Your task to perform on an android device: delete a single message in the gmail app Image 0: 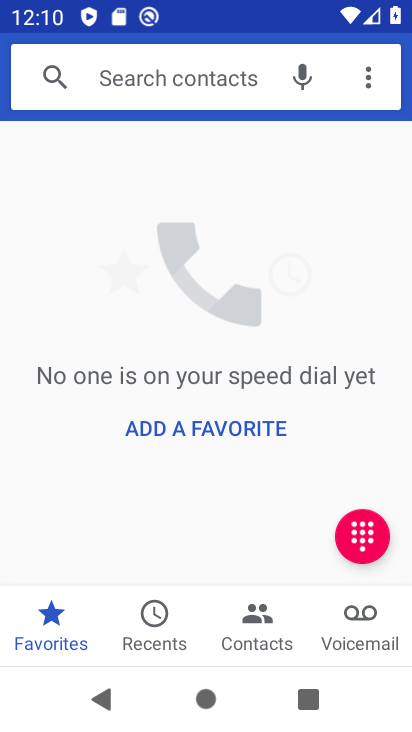
Step 0: press home button
Your task to perform on an android device: delete a single message in the gmail app Image 1: 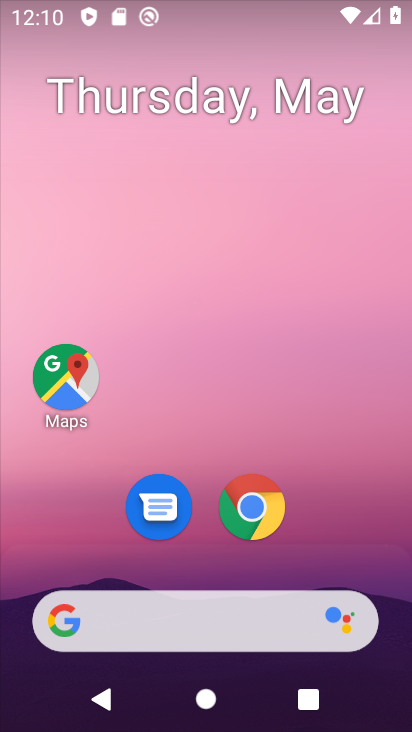
Step 1: drag from (291, 563) to (250, 9)
Your task to perform on an android device: delete a single message in the gmail app Image 2: 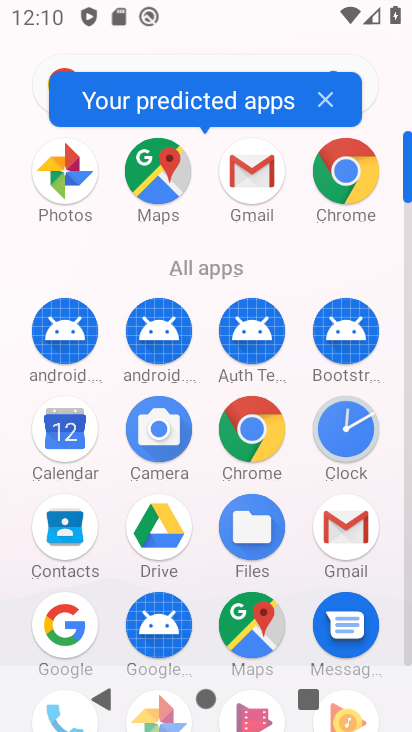
Step 2: click (341, 517)
Your task to perform on an android device: delete a single message in the gmail app Image 3: 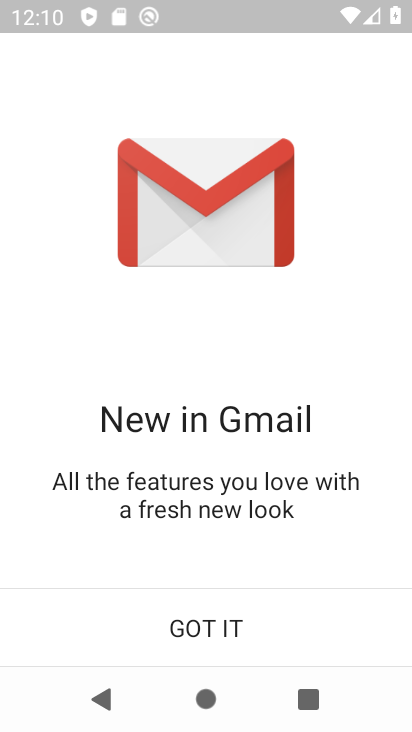
Step 3: click (138, 601)
Your task to perform on an android device: delete a single message in the gmail app Image 4: 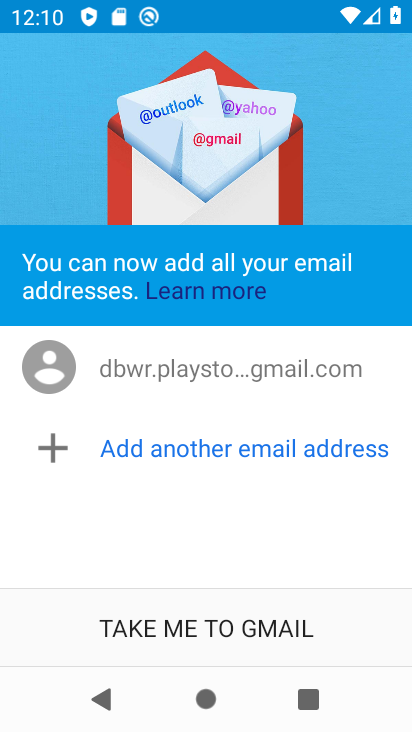
Step 4: click (181, 622)
Your task to perform on an android device: delete a single message in the gmail app Image 5: 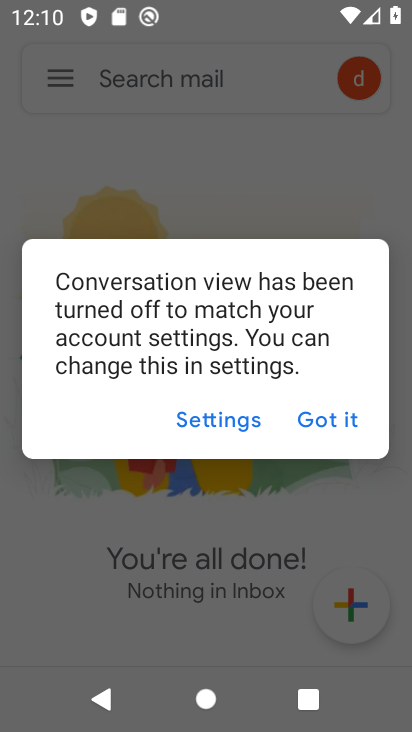
Step 5: click (316, 429)
Your task to perform on an android device: delete a single message in the gmail app Image 6: 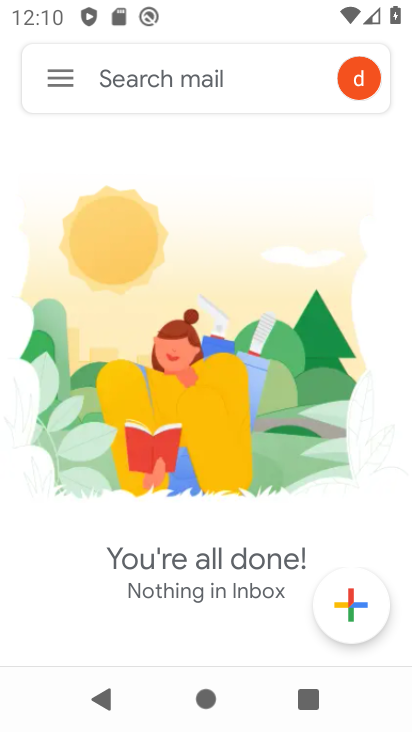
Step 6: click (58, 78)
Your task to perform on an android device: delete a single message in the gmail app Image 7: 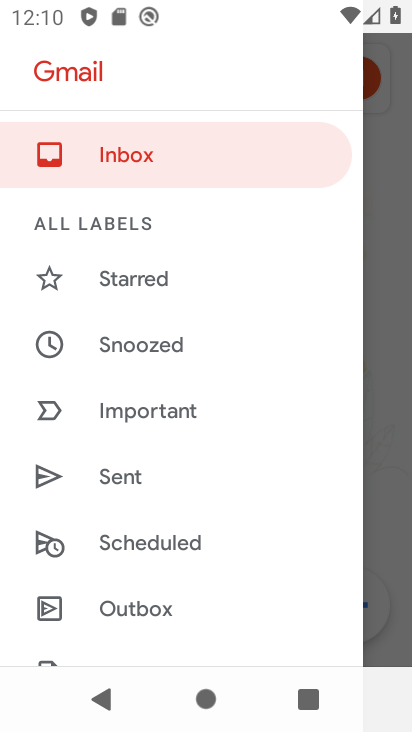
Step 7: drag from (166, 587) to (203, 244)
Your task to perform on an android device: delete a single message in the gmail app Image 8: 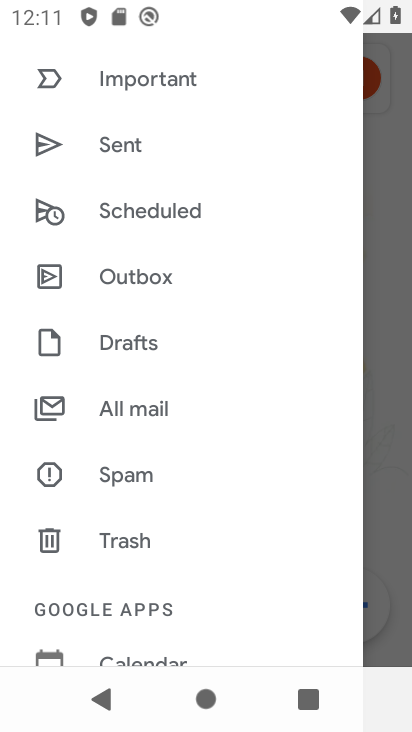
Step 8: click (163, 399)
Your task to perform on an android device: delete a single message in the gmail app Image 9: 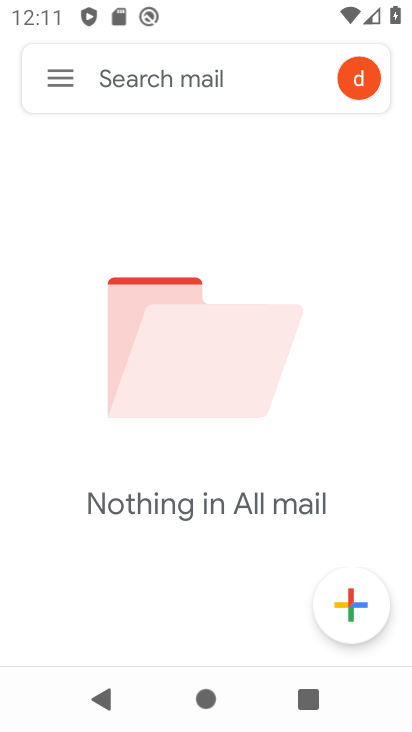
Step 9: task complete